Your task to perform on an android device: Find coffee shops on Maps Image 0: 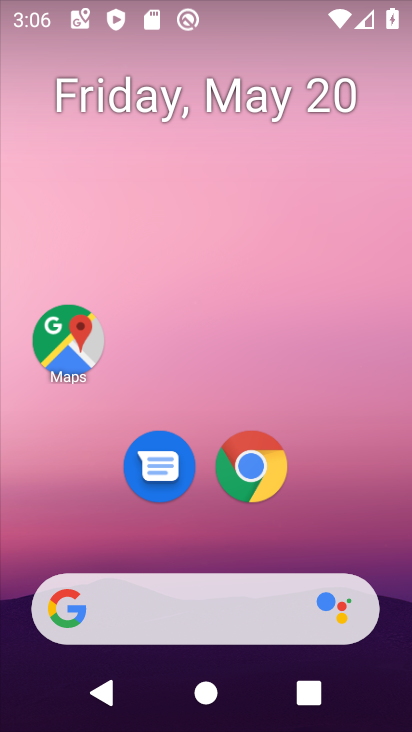
Step 0: press home button
Your task to perform on an android device: Find coffee shops on Maps Image 1: 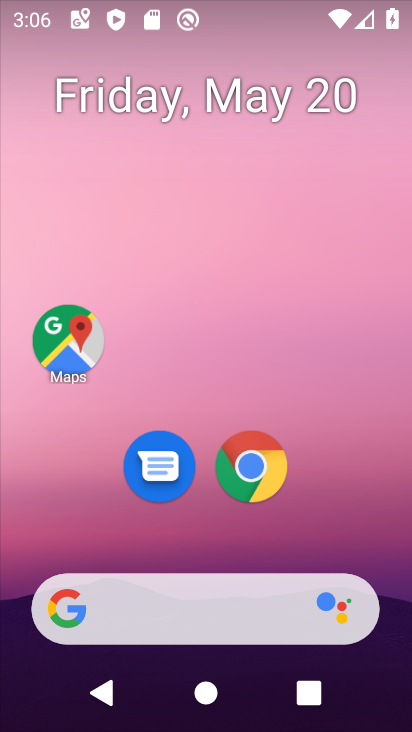
Step 1: click (67, 347)
Your task to perform on an android device: Find coffee shops on Maps Image 2: 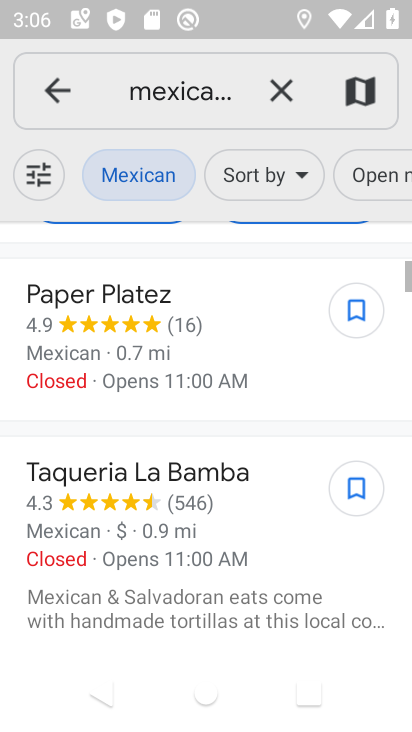
Step 2: click (283, 90)
Your task to perform on an android device: Find coffee shops on Maps Image 3: 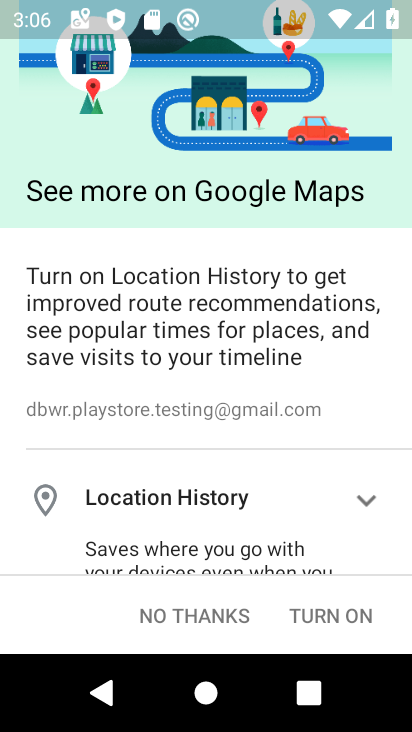
Step 3: click (330, 618)
Your task to perform on an android device: Find coffee shops on Maps Image 4: 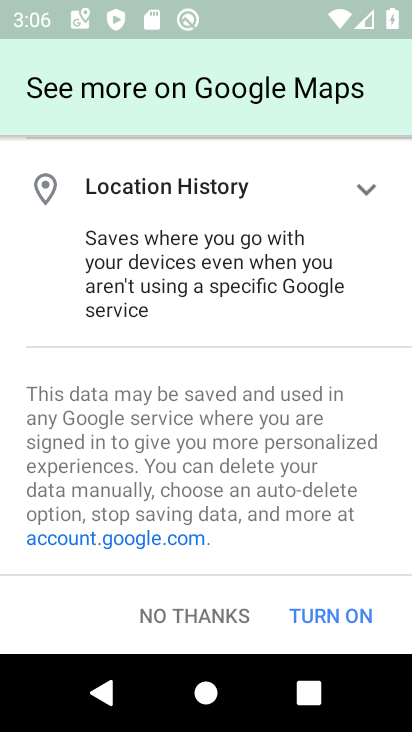
Step 4: drag from (262, 546) to (220, 324)
Your task to perform on an android device: Find coffee shops on Maps Image 5: 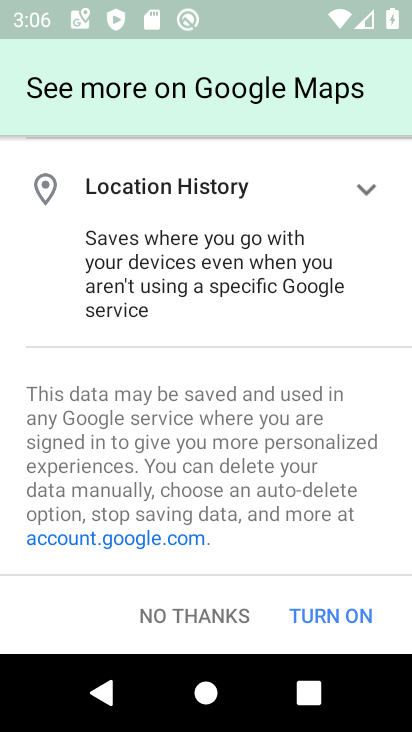
Step 5: click (316, 613)
Your task to perform on an android device: Find coffee shops on Maps Image 6: 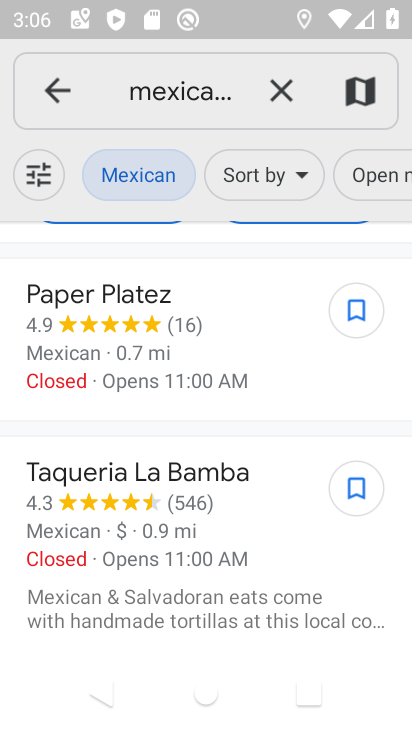
Step 6: click (281, 96)
Your task to perform on an android device: Find coffee shops on Maps Image 7: 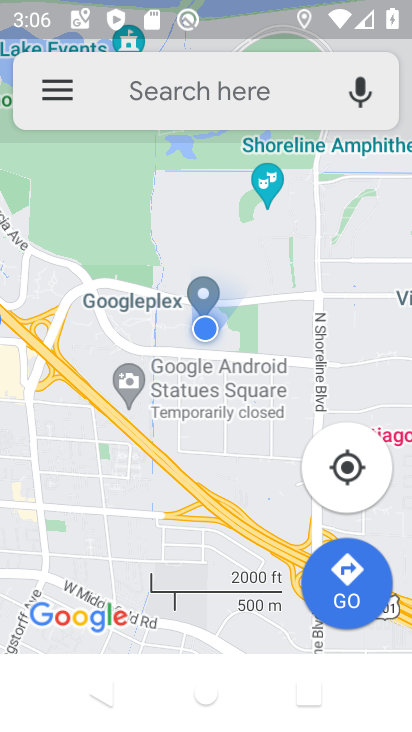
Step 7: click (156, 95)
Your task to perform on an android device: Find coffee shops on Maps Image 8: 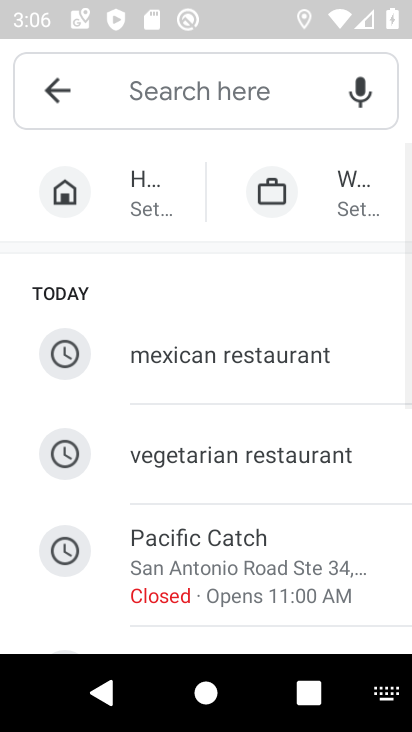
Step 8: drag from (199, 587) to (170, 417)
Your task to perform on an android device: Find coffee shops on Maps Image 9: 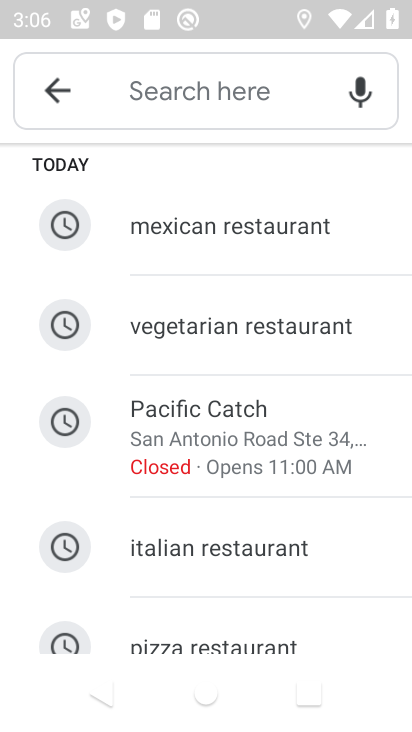
Step 9: drag from (183, 604) to (182, 369)
Your task to perform on an android device: Find coffee shops on Maps Image 10: 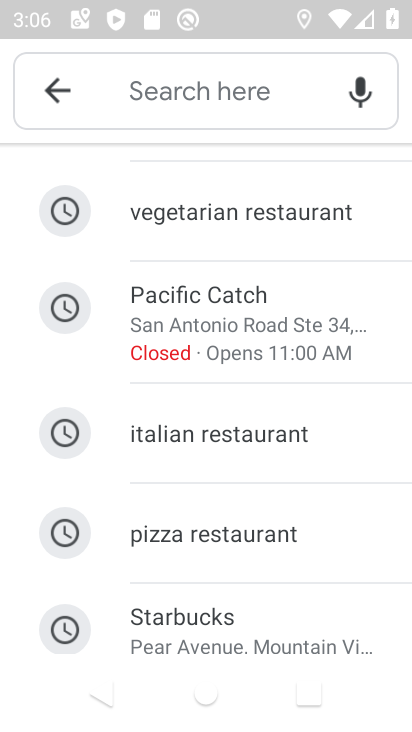
Step 10: drag from (185, 214) to (186, 569)
Your task to perform on an android device: Find coffee shops on Maps Image 11: 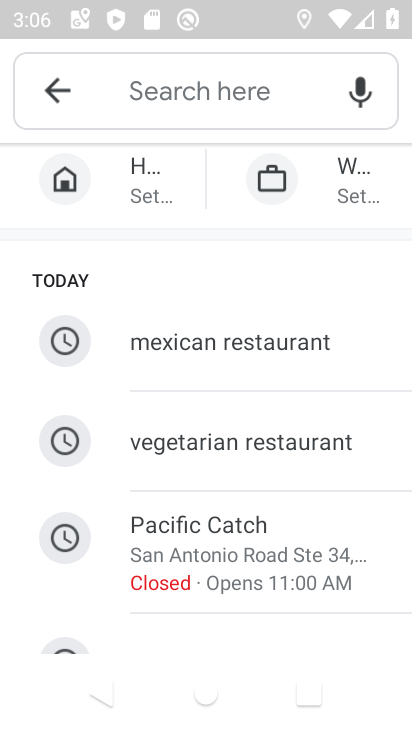
Step 11: drag from (194, 273) to (210, 545)
Your task to perform on an android device: Find coffee shops on Maps Image 12: 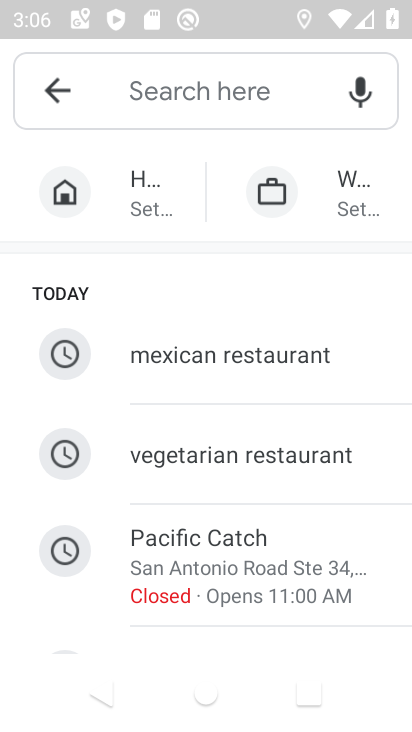
Step 12: drag from (208, 573) to (188, 252)
Your task to perform on an android device: Find coffee shops on Maps Image 13: 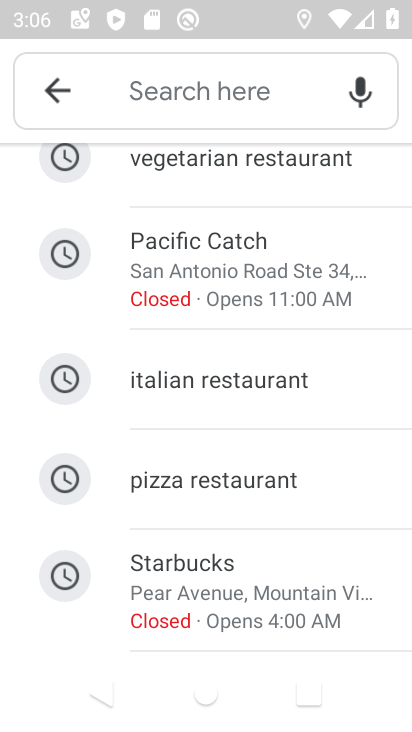
Step 13: drag from (200, 595) to (200, 301)
Your task to perform on an android device: Find coffee shops on Maps Image 14: 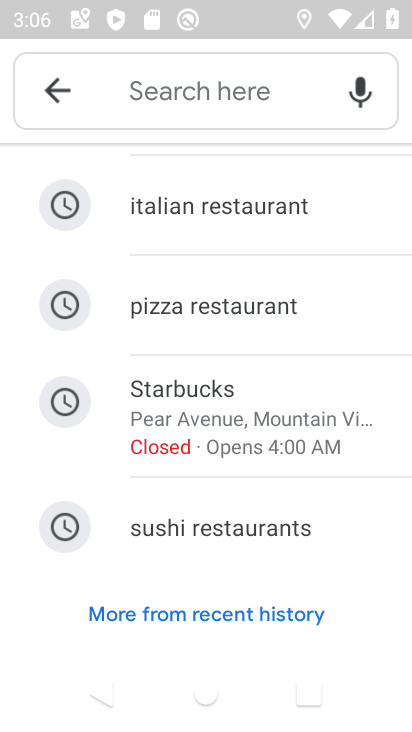
Step 14: type "coffee"
Your task to perform on an android device: Find coffee shops on Maps Image 15: 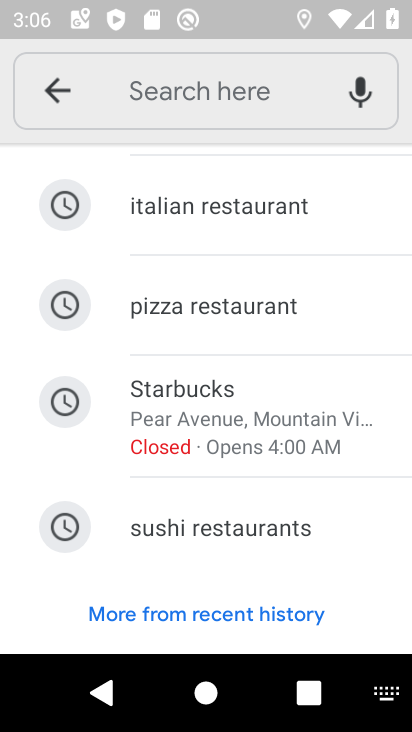
Step 15: click (195, 103)
Your task to perform on an android device: Find coffee shops on Maps Image 16: 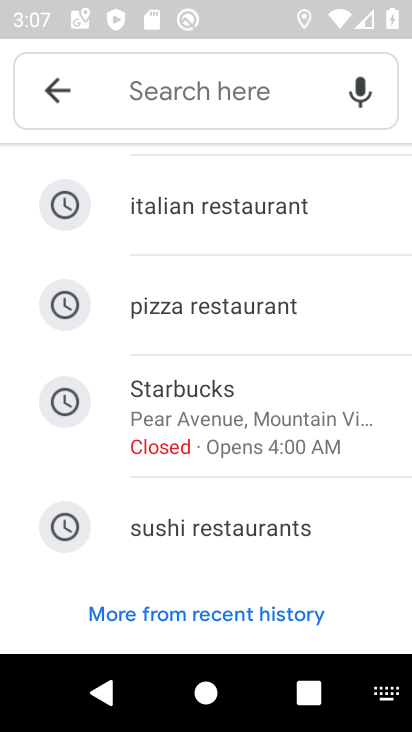
Step 16: type "coffee"
Your task to perform on an android device: Find coffee shops on Maps Image 17: 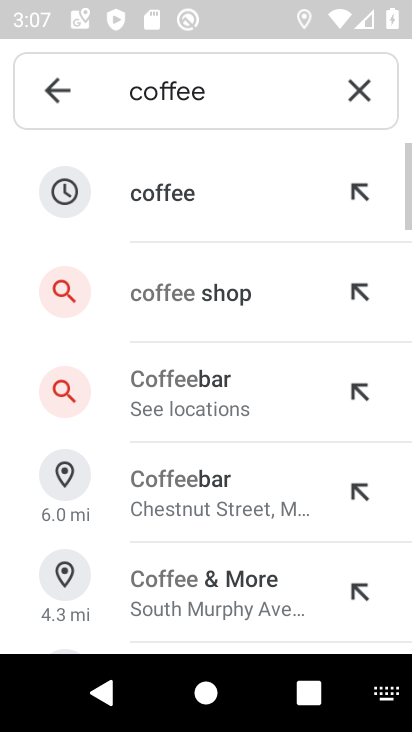
Step 17: click (194, 189)
Your task to perform on an android device: Find coffee shops on Maps Image 18: 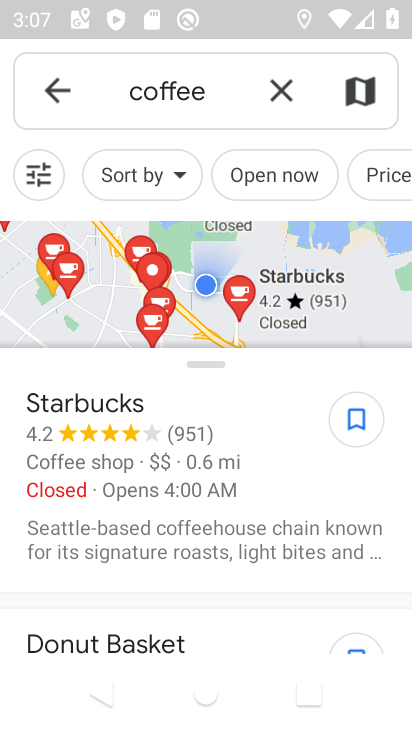
Step 18: task complete